Your task to perform on an android device: uninstall "Google Home" Image 0: 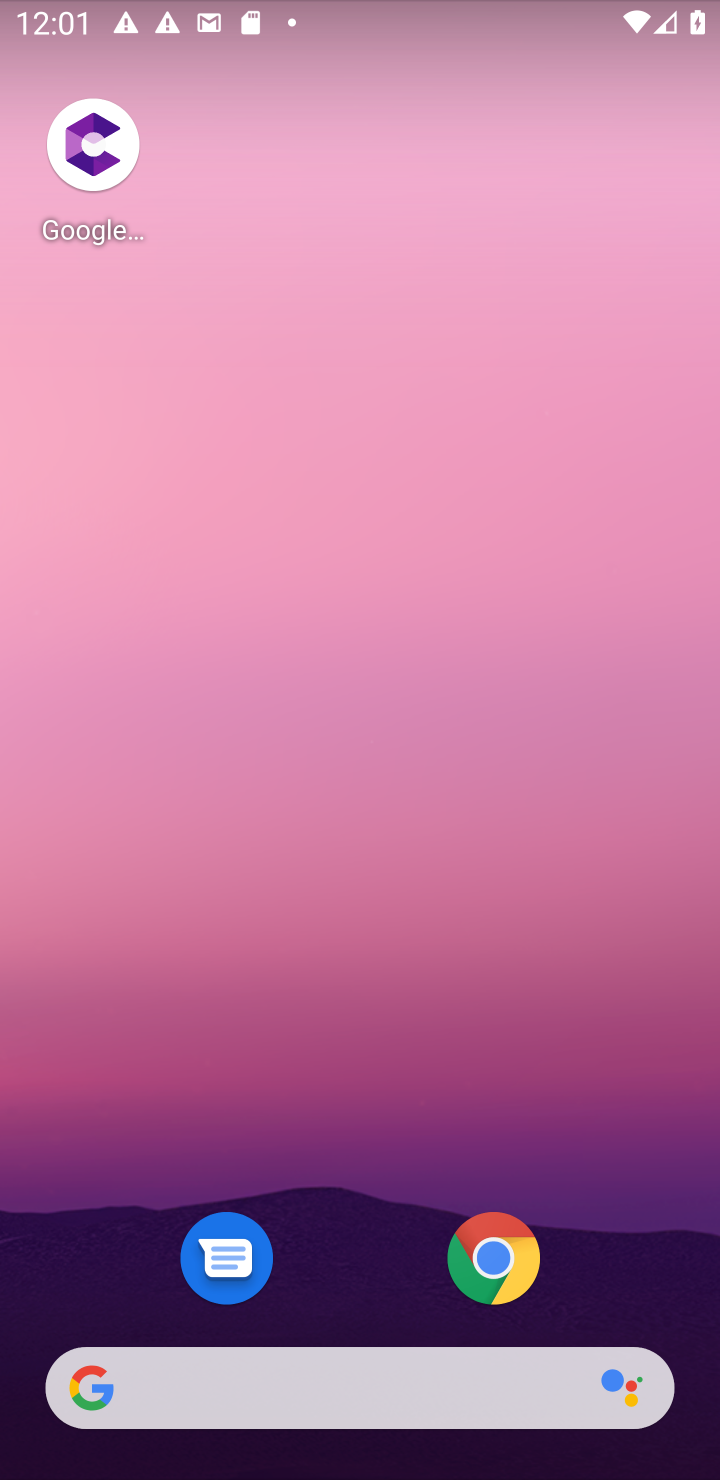
Step 0: drag from (329, 1271) to (432, 39)
Your task to perform on an android device: uninstall "Google Home" Image 1: 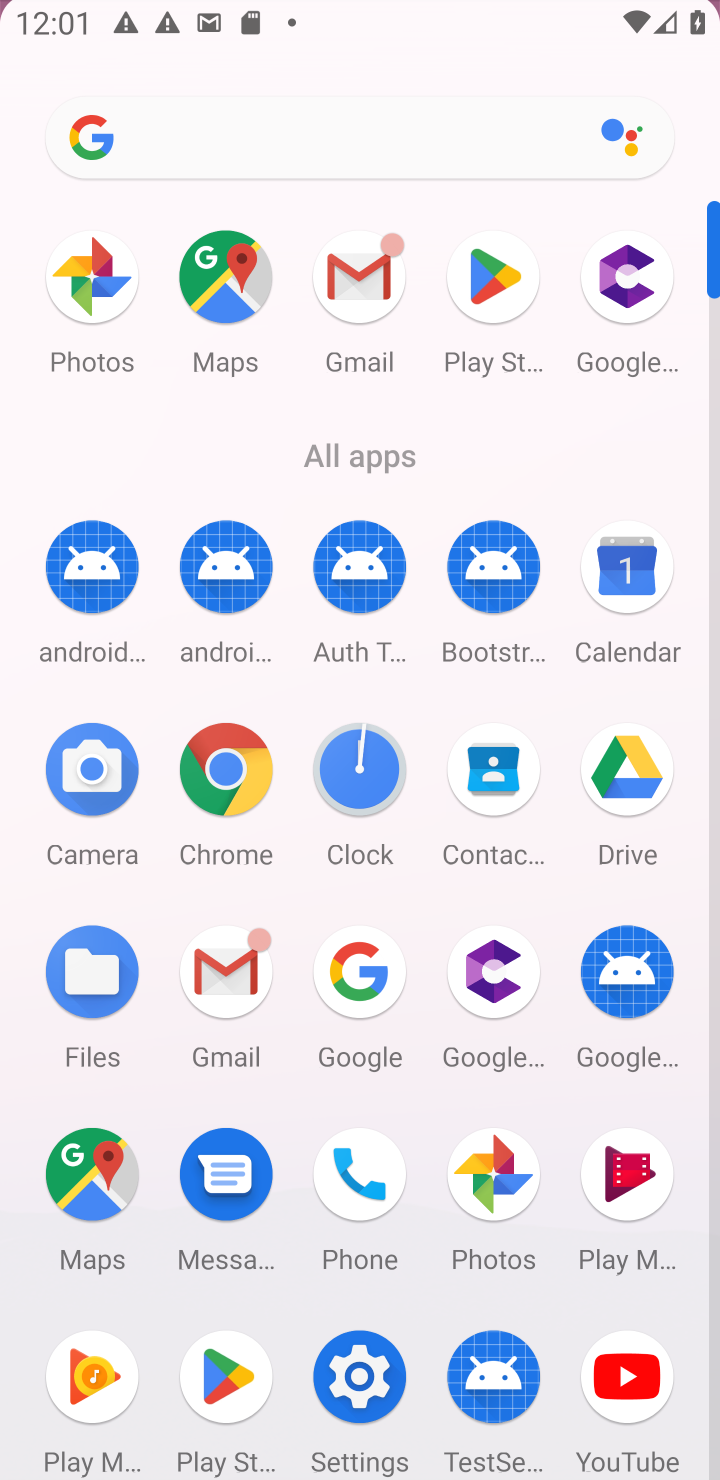
Step 1: click (194, 1355)
Your task to perform on an android device: uninstall "Google Home" Image 2: 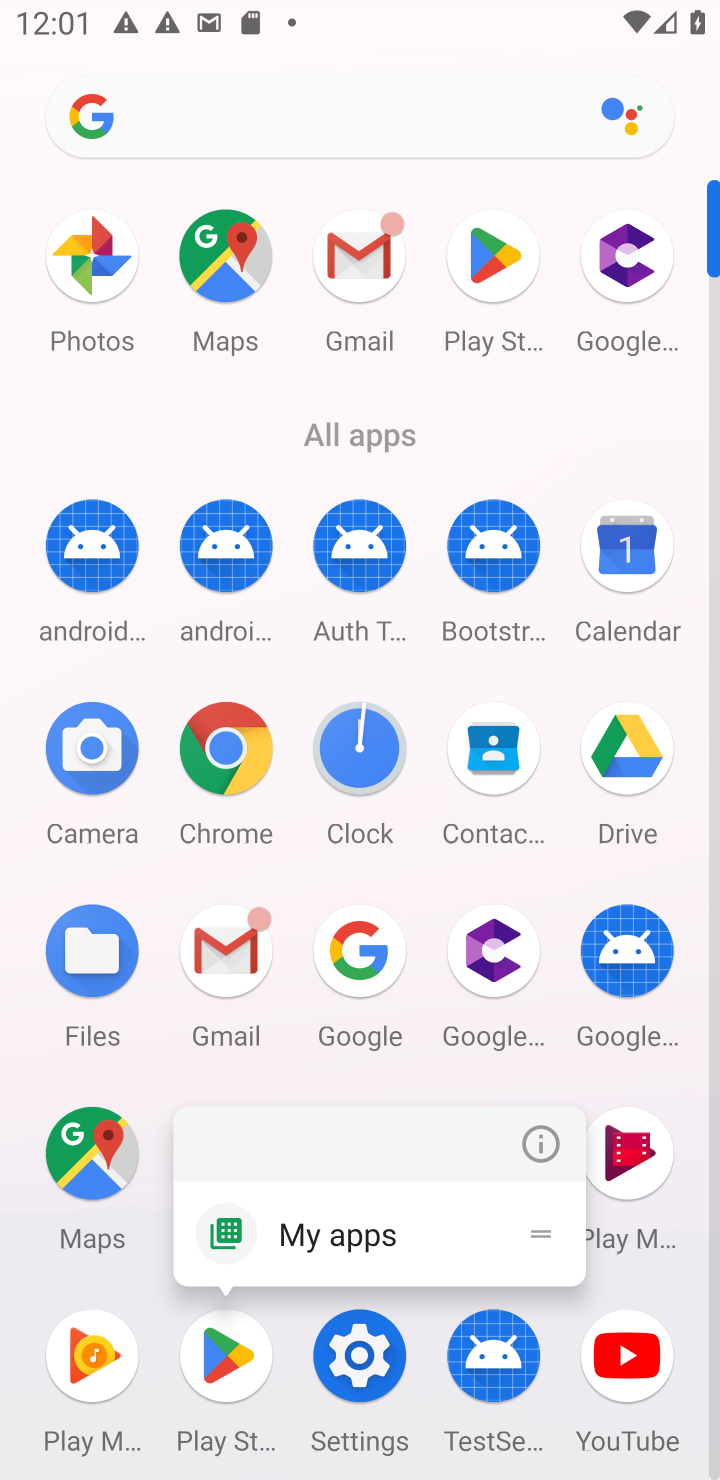
Step 2: click (233, 1413)
Your task to perform on an android device: uninstall "Google Home" Image 3: 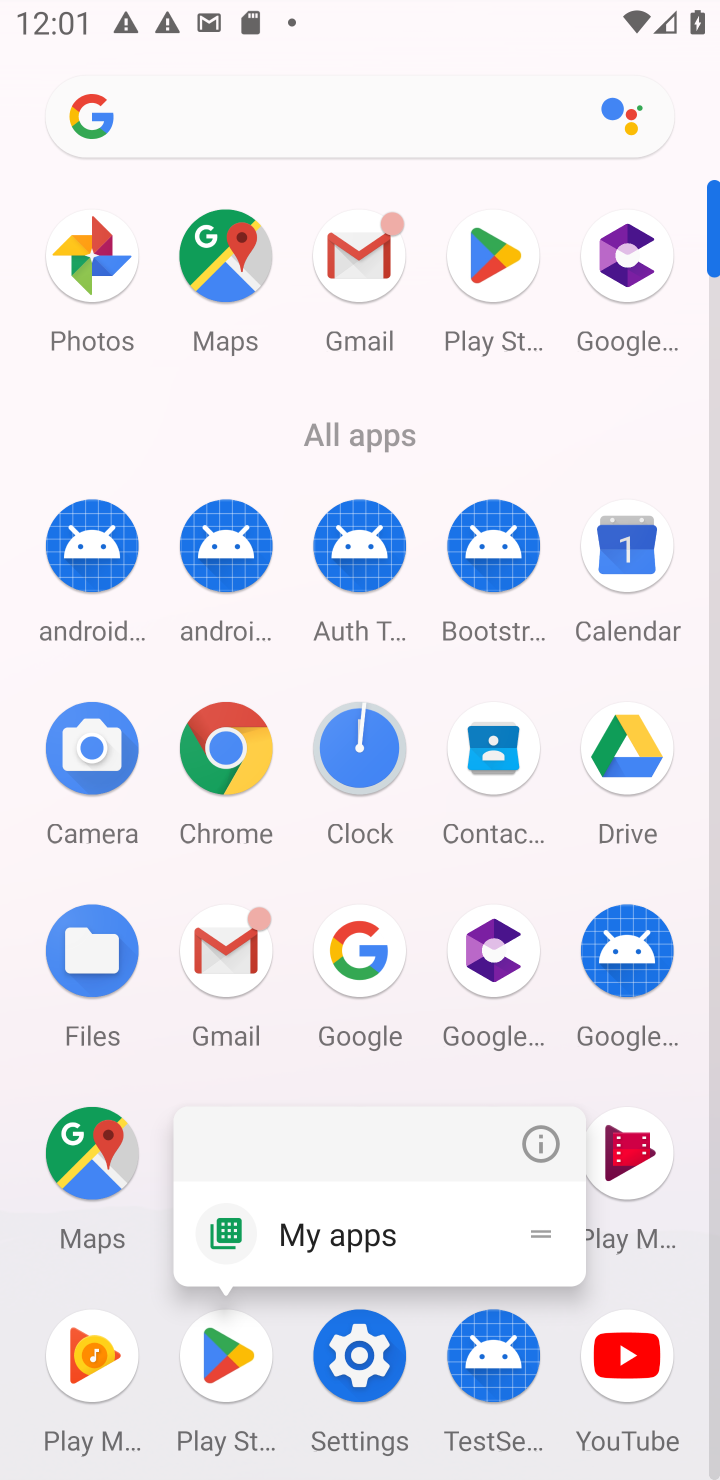
Step 3: click (247, 1372)
Your task to perform on an android device: uninstall "Google Home" Image 4: 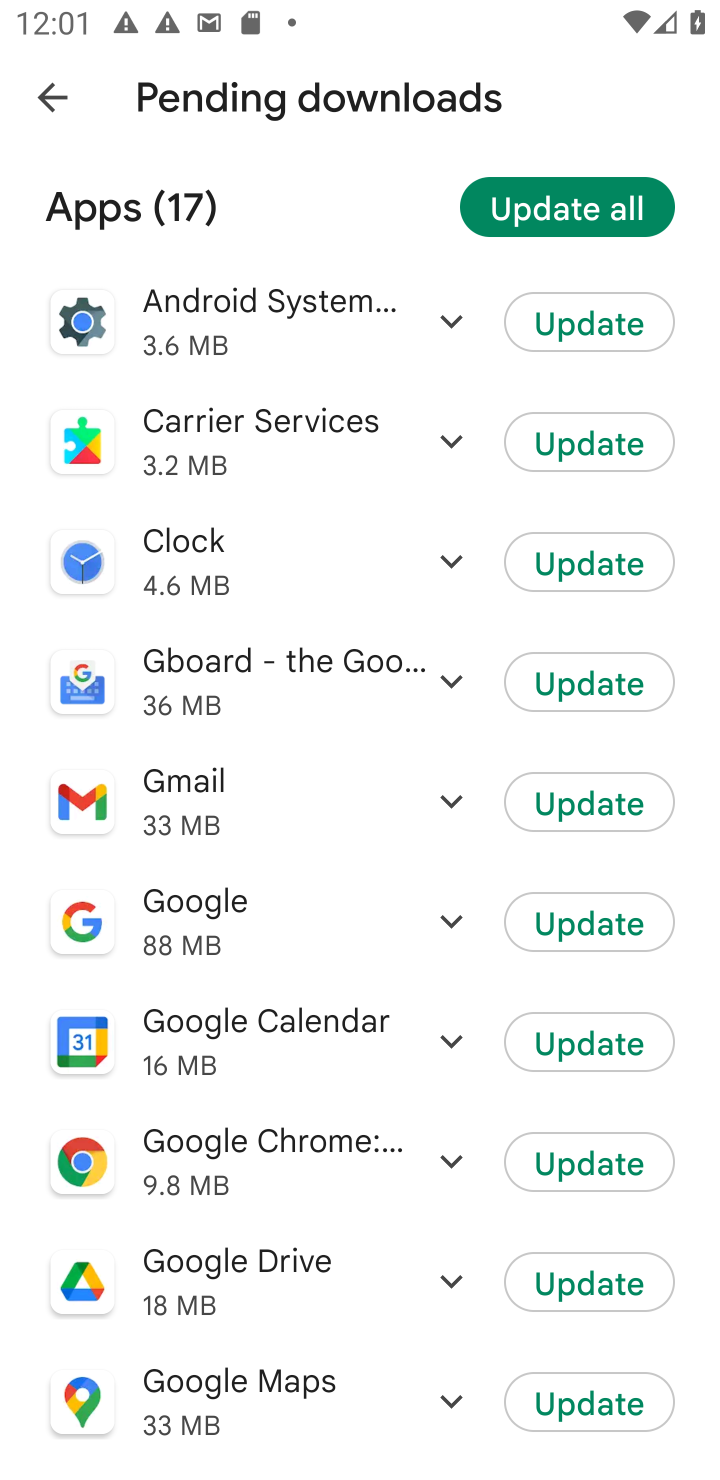
Step 4: click (61, 101)
Your task to perform on an android device: uninstall "Google Home" Image 5: 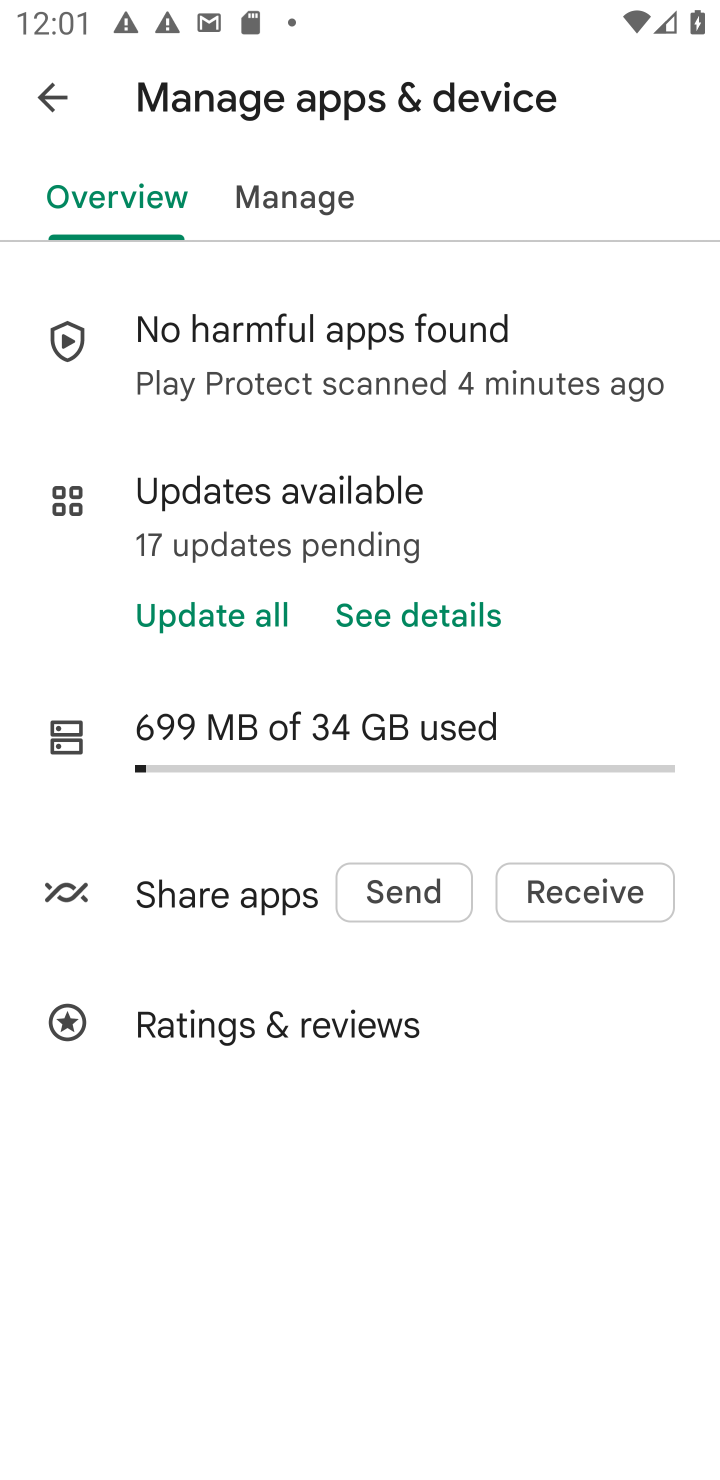
Step 5: click (56, 101)
Your task to perform on an android device: uninstall "Google Home" Image 6: 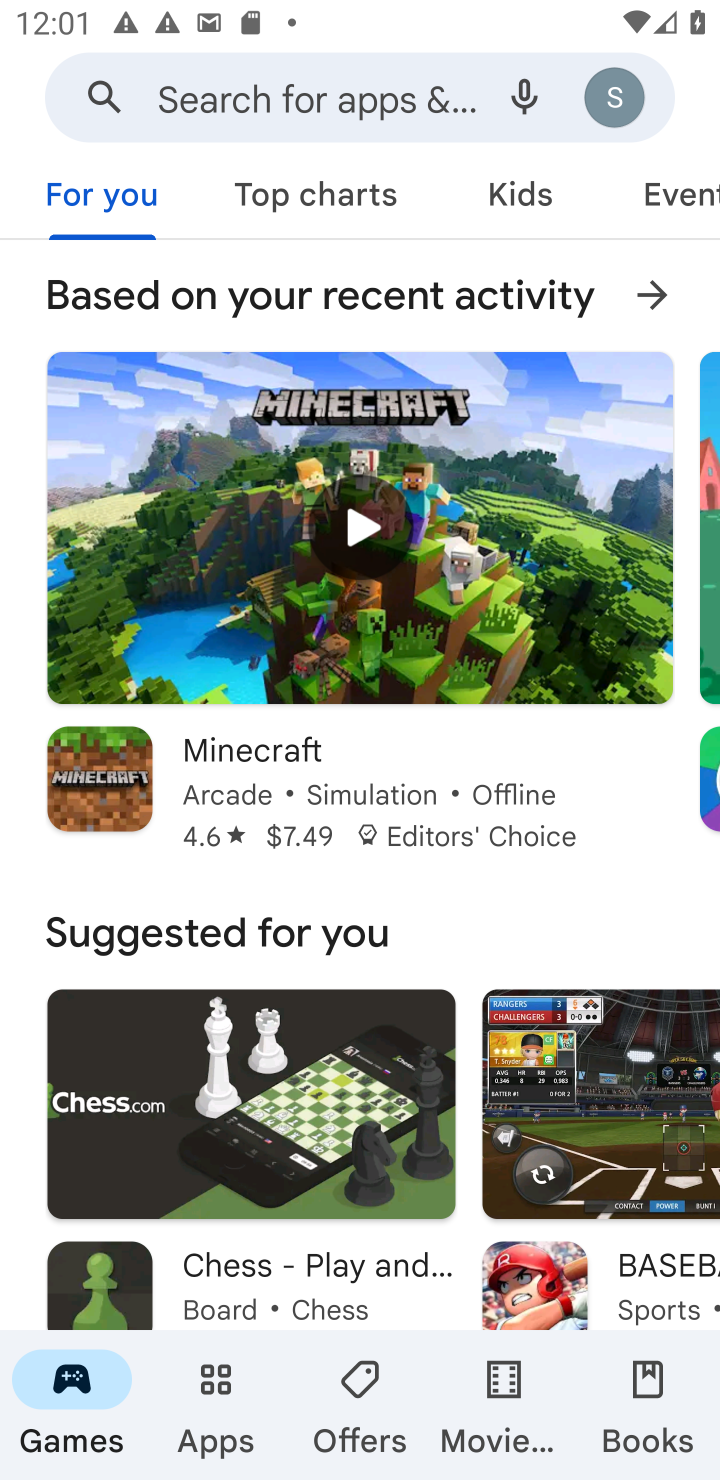
Step 6: click (187, 110)
Your task to perform on an android device: uninstall "Google Home" Image 7: 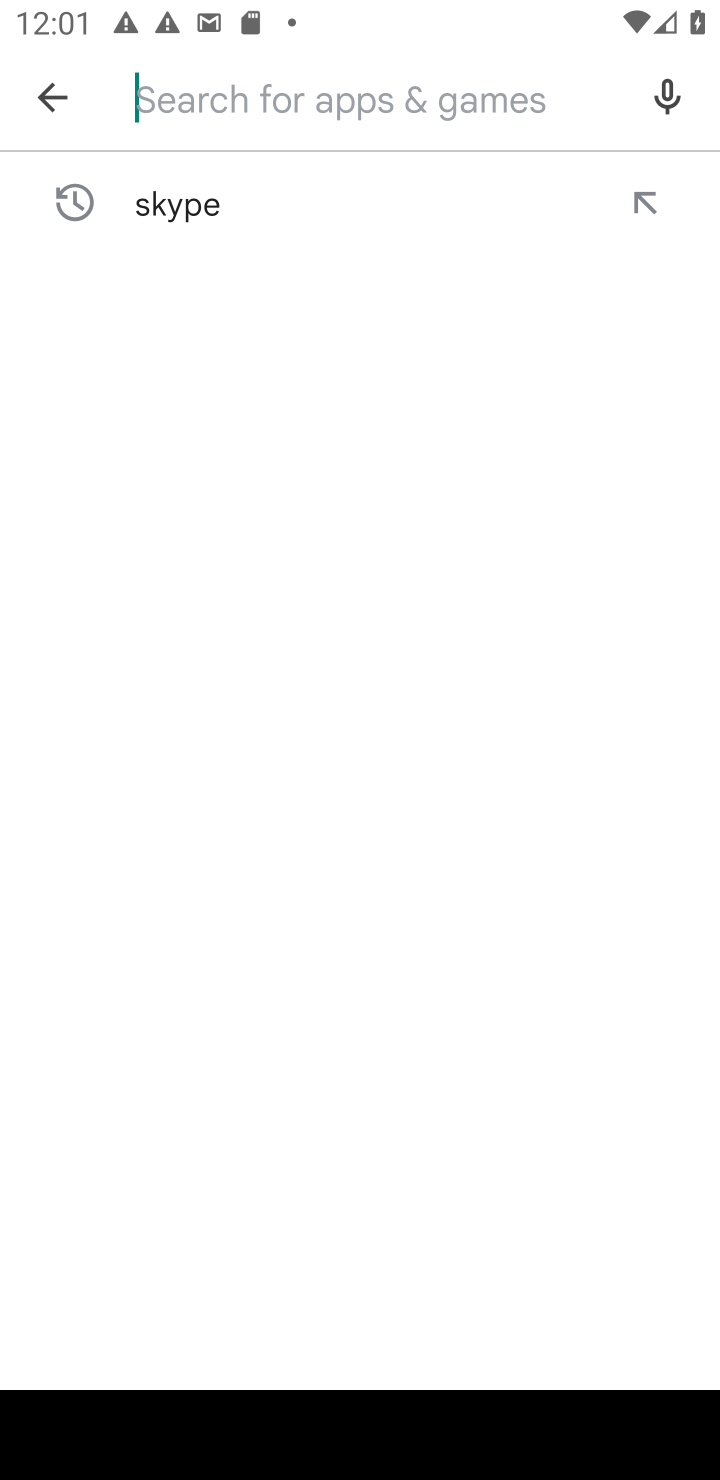
Step 7: type "Google Home"
Your task to perform on an android device: uninstall "Google Home" Image 8: 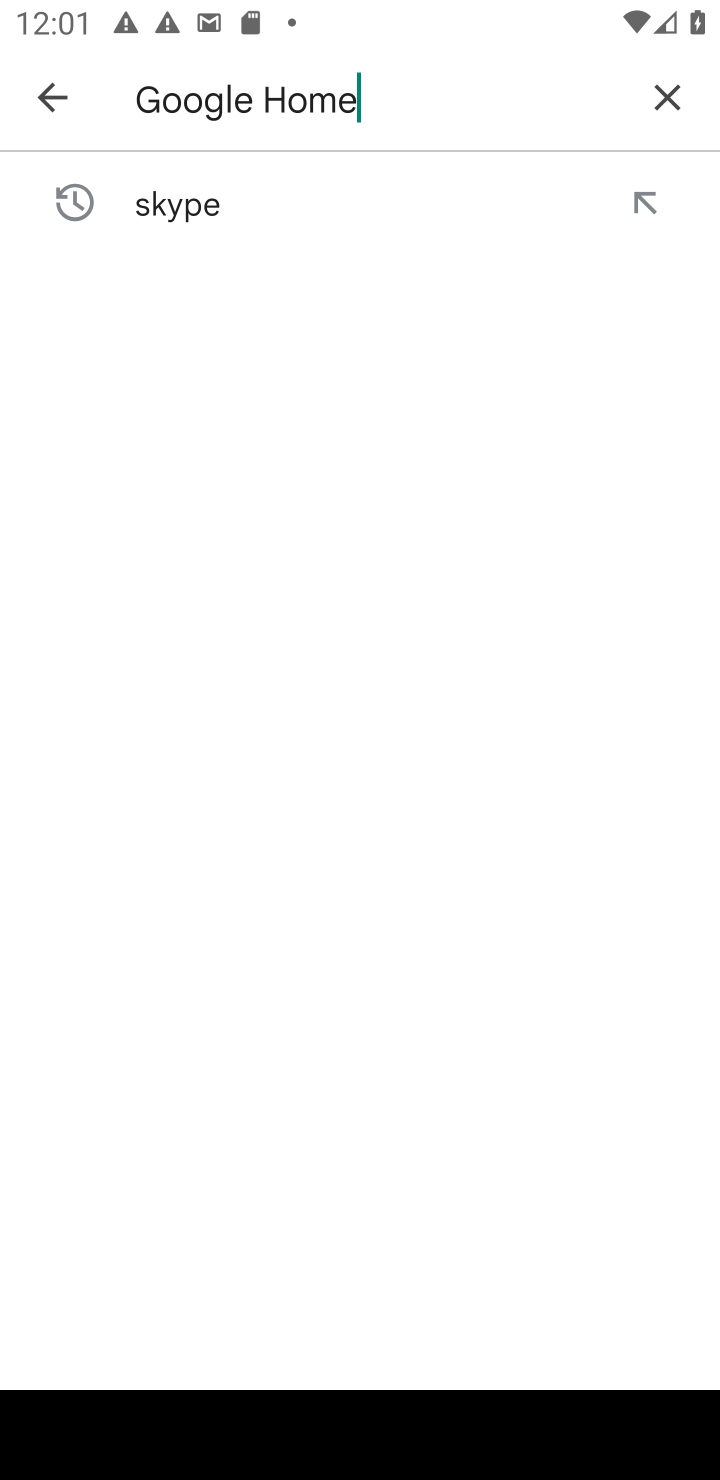
Step 8: type ""
Your task to perform on an android device: uninstall "Google Home" Image 9: 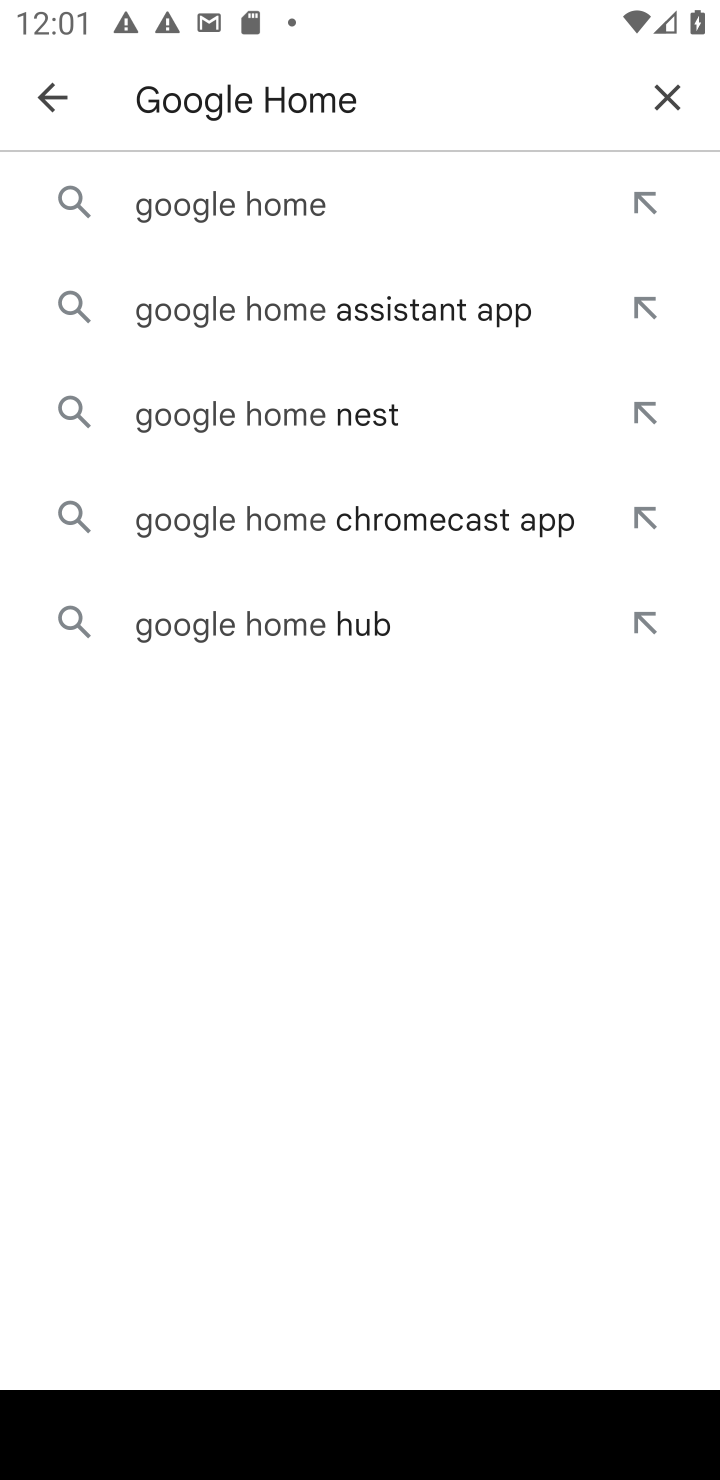
Step 9: click (230, 172)
Your task to perform on an android device: uninstall "Google Home" Image 10: 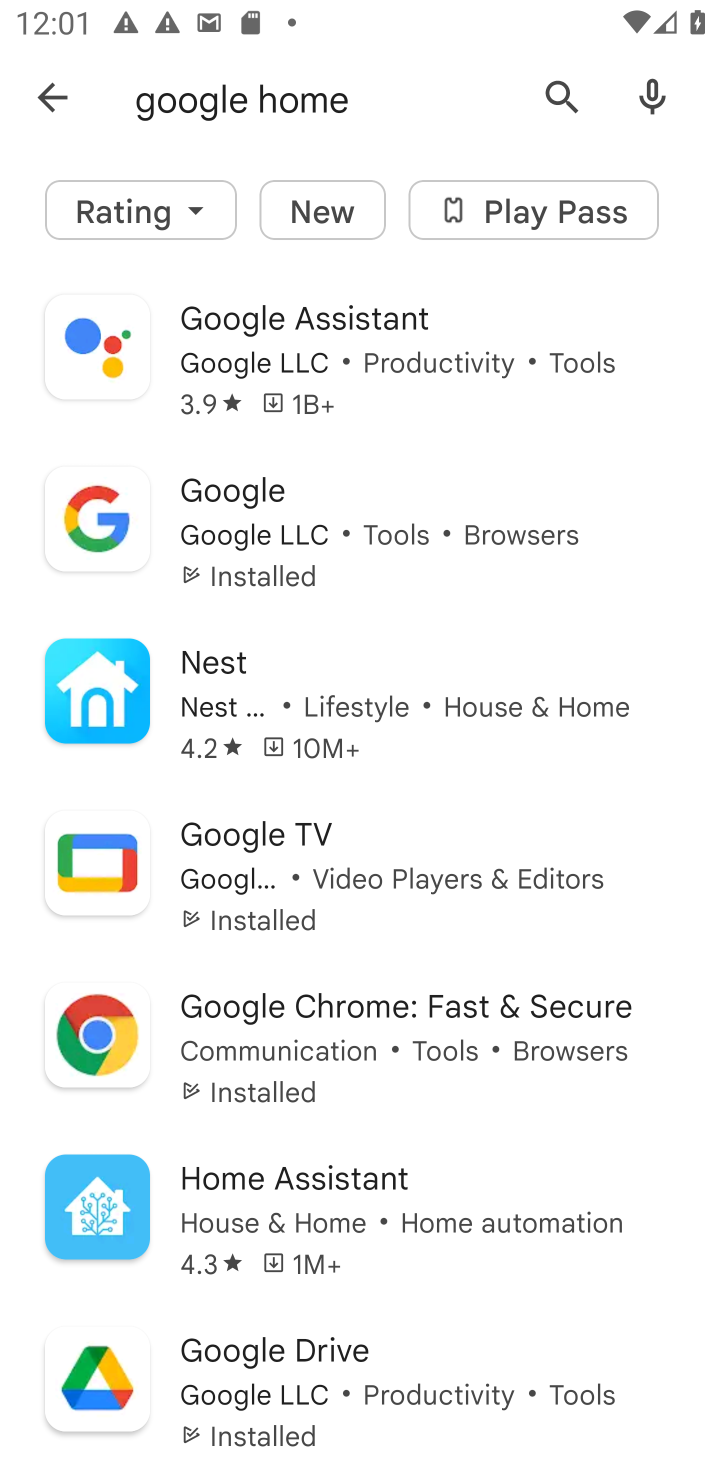
Step 10: task complete